Your task to perform on an android device: Search for 8K TVs on Best Buy. Image 0: 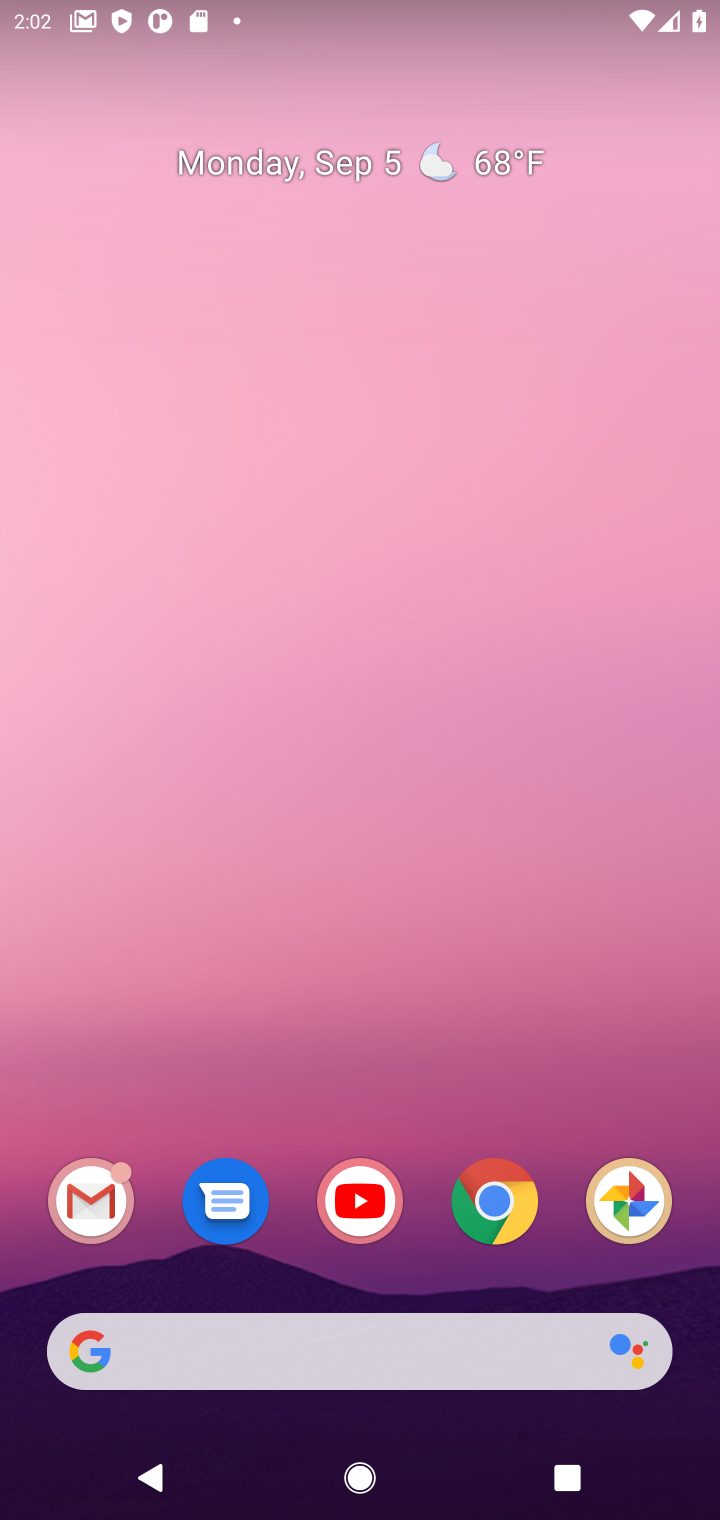
Step 0: click (492, 1191)
Your task to perform on an android device: Search for 8K TVs on Best Buy. Image 1: 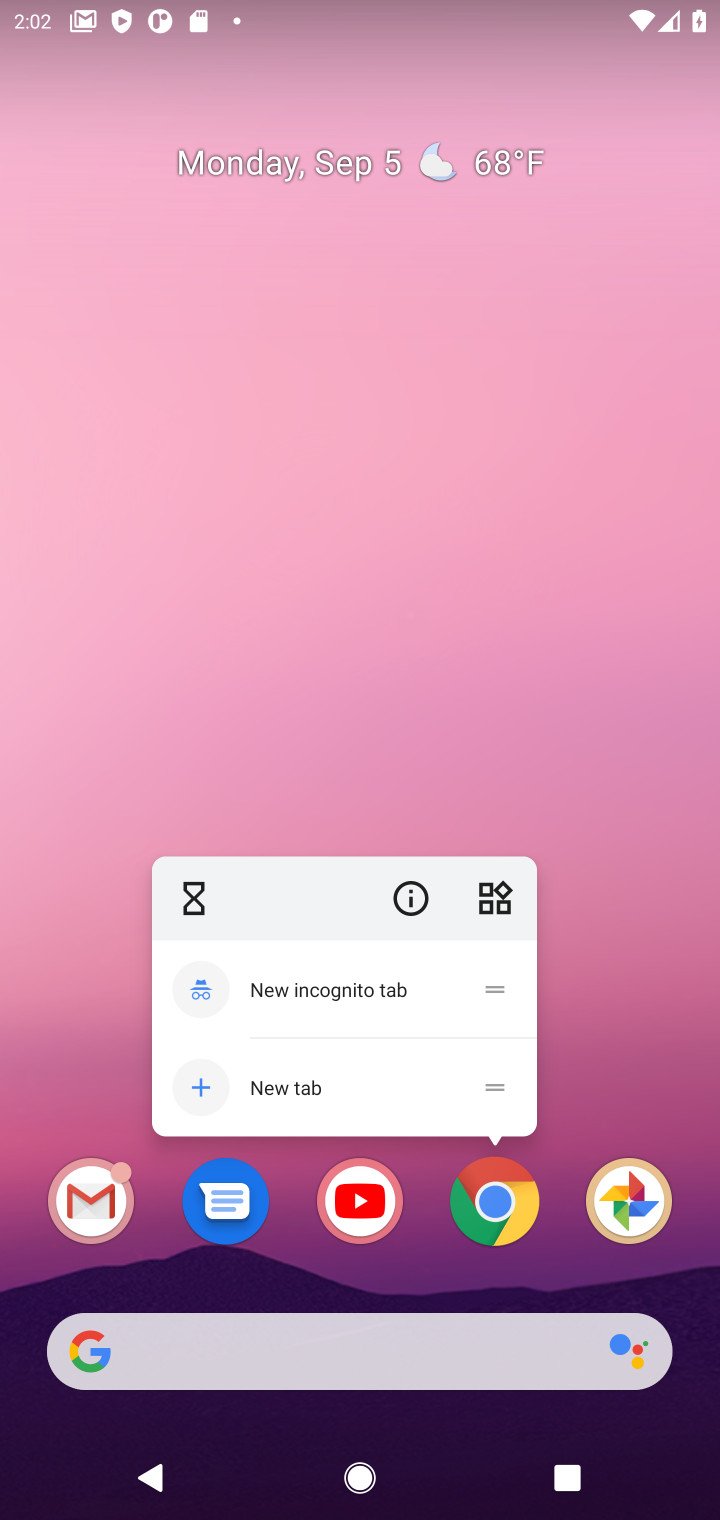
Step 1: click (492, 1194)
Your task to perform on an android device: Search for 8K TVs on Best Buy. Image 2: 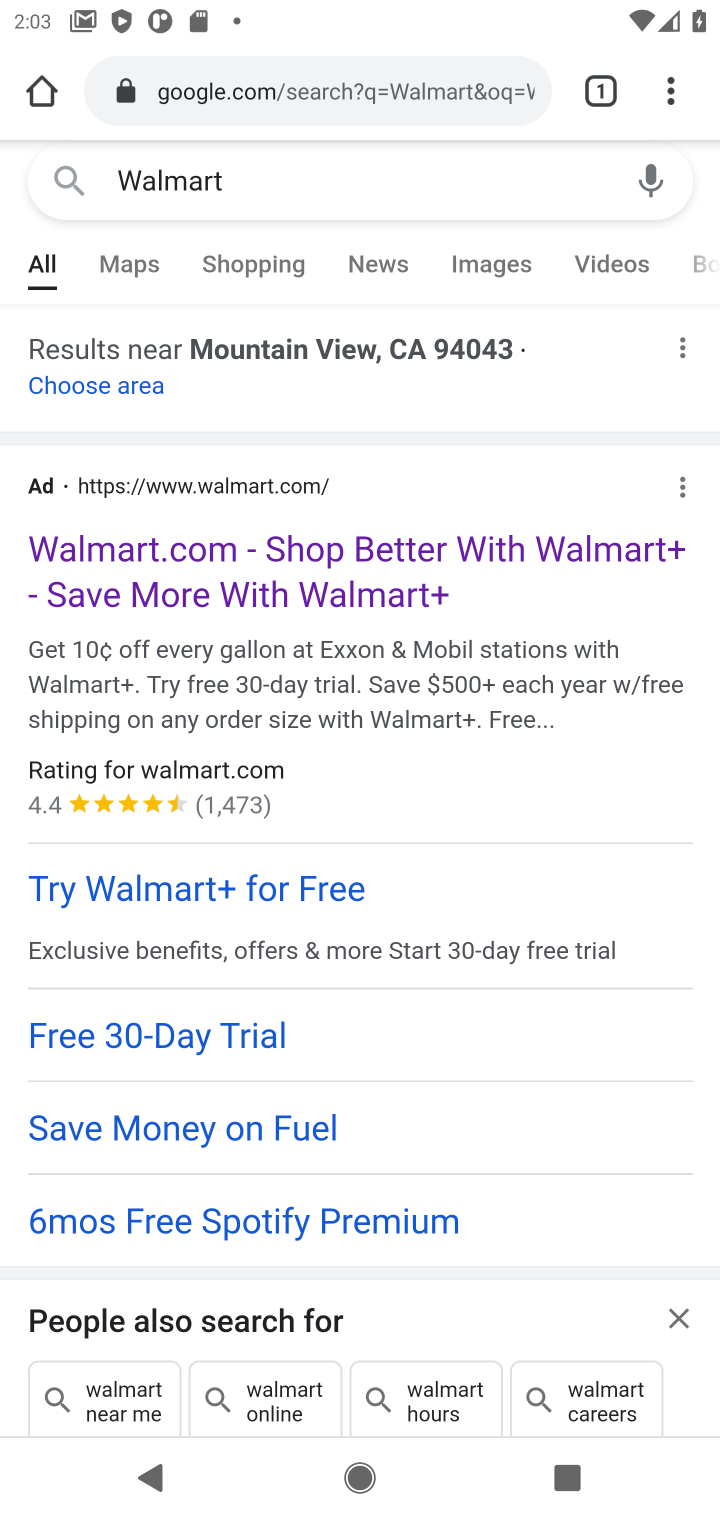
Step 2: click (425, 86)
Your task to perform on an android device: Search for 8K TVs on Best Buy. Image 3: 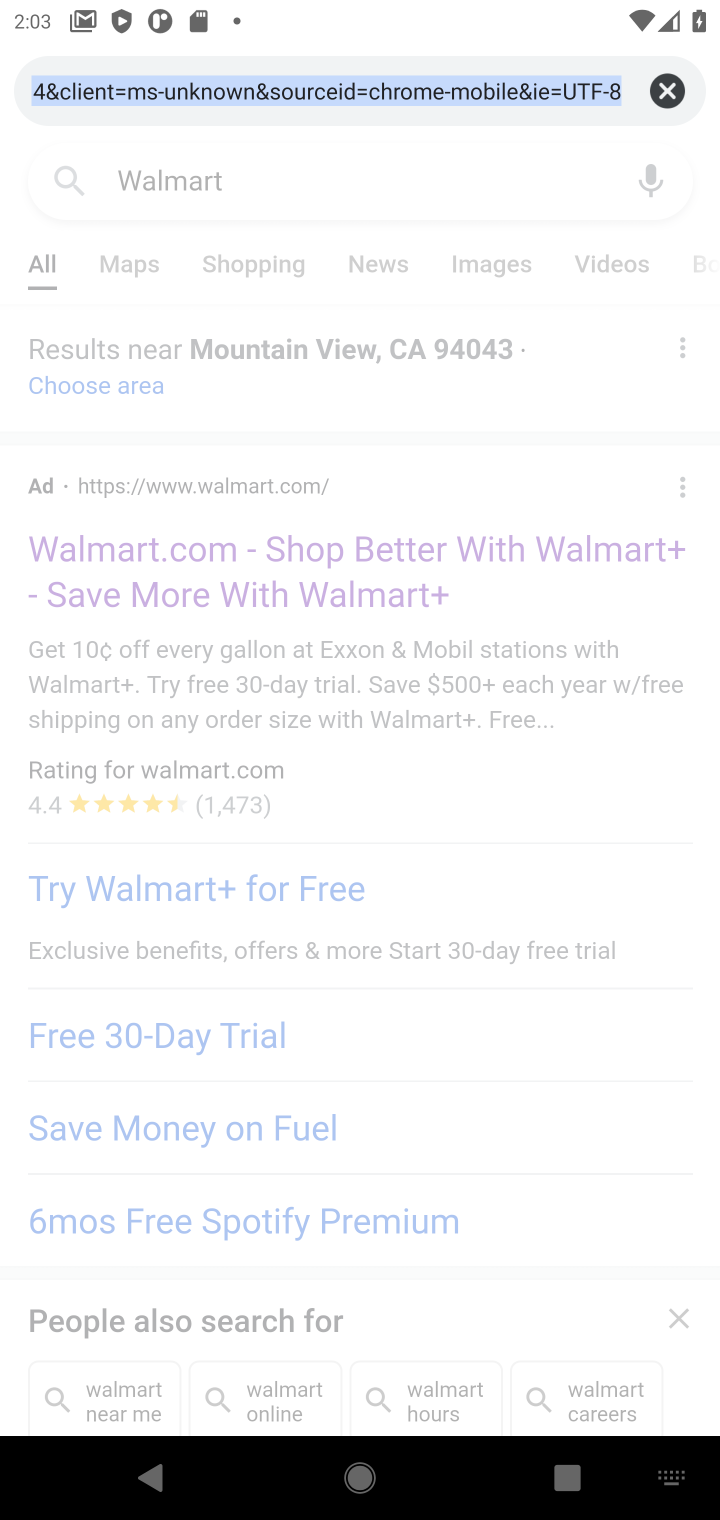
Step 3: click (653, 75)
Your task to perform on an android device: Search for 8K TVs on Best Buy. Image 4: 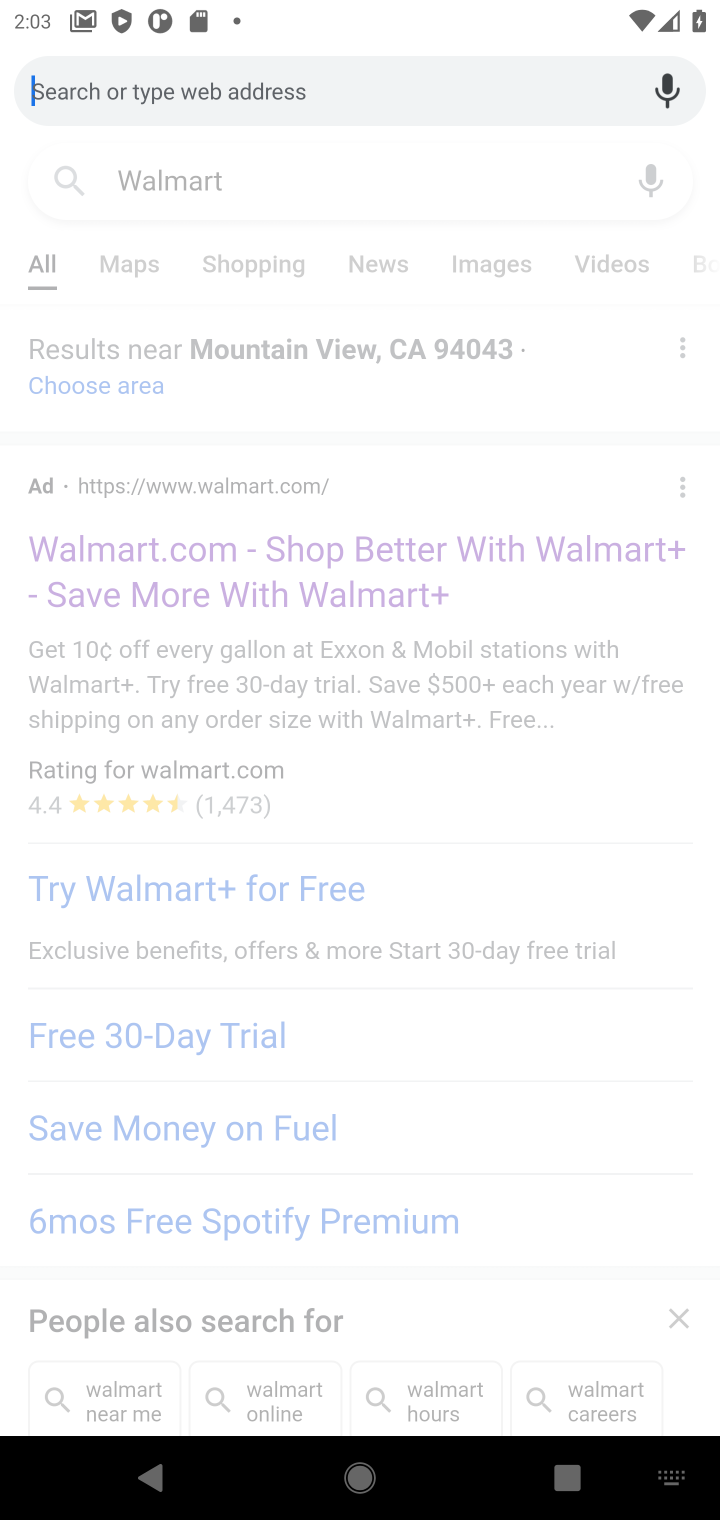
Step 4: type "Best Buy"
Your task to perform on an android device: Search for 8K TVs on Best Buy. Image 5: 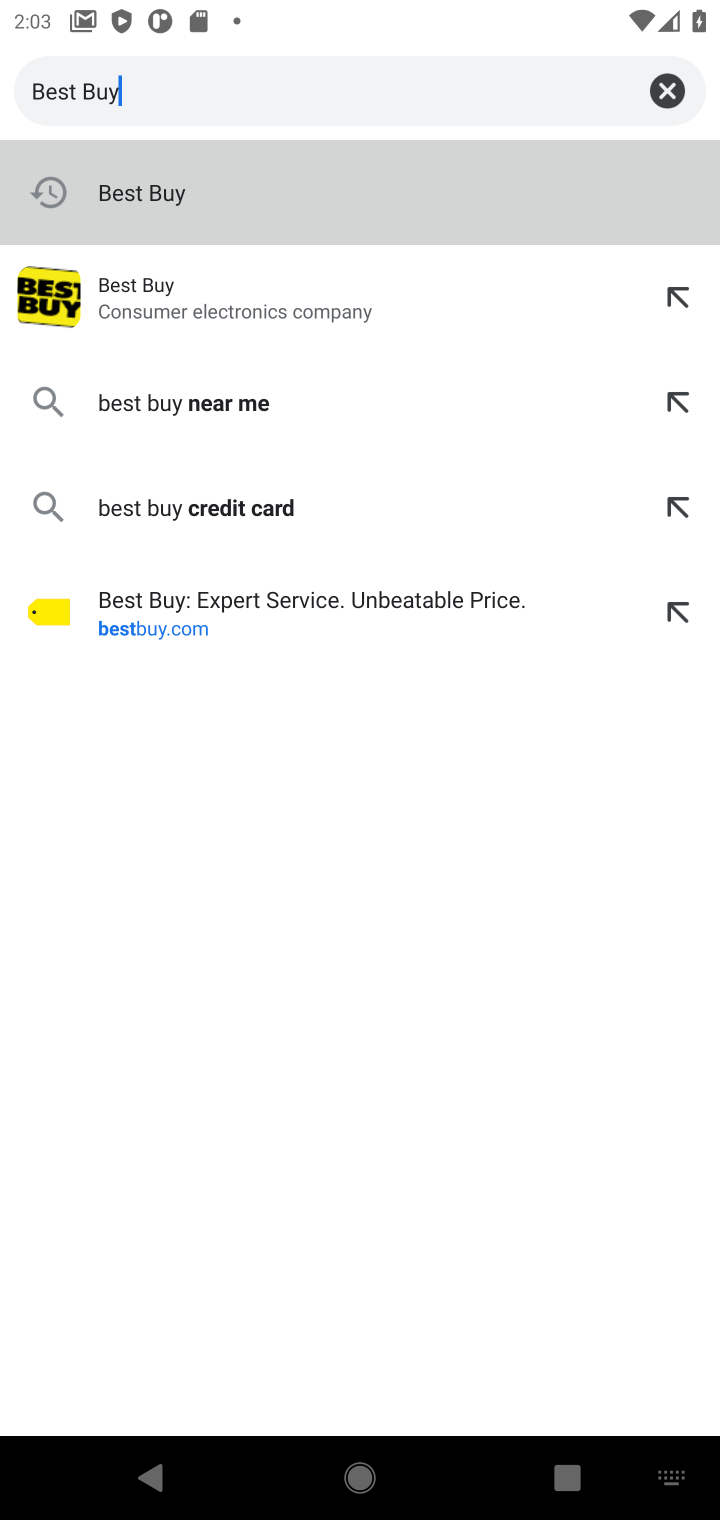
Step 5: press enter
Your task to perform on an android device: Search for 8K TVs on Best Buy. Image 6: 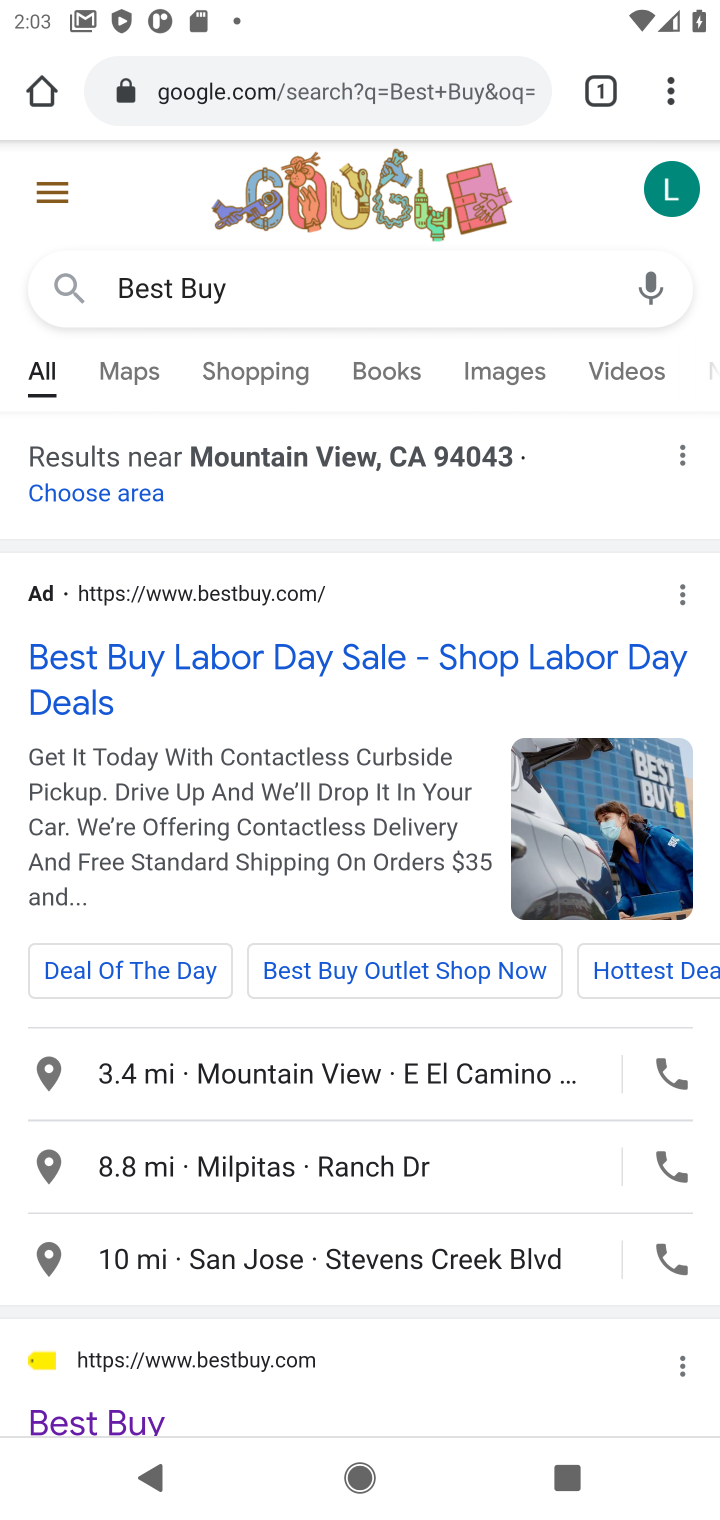
Step 6: drag from (385, 1088) to (677, 314)
Your task to perform on an android device: Search for 8K TVs on Best Buy. Image 7: 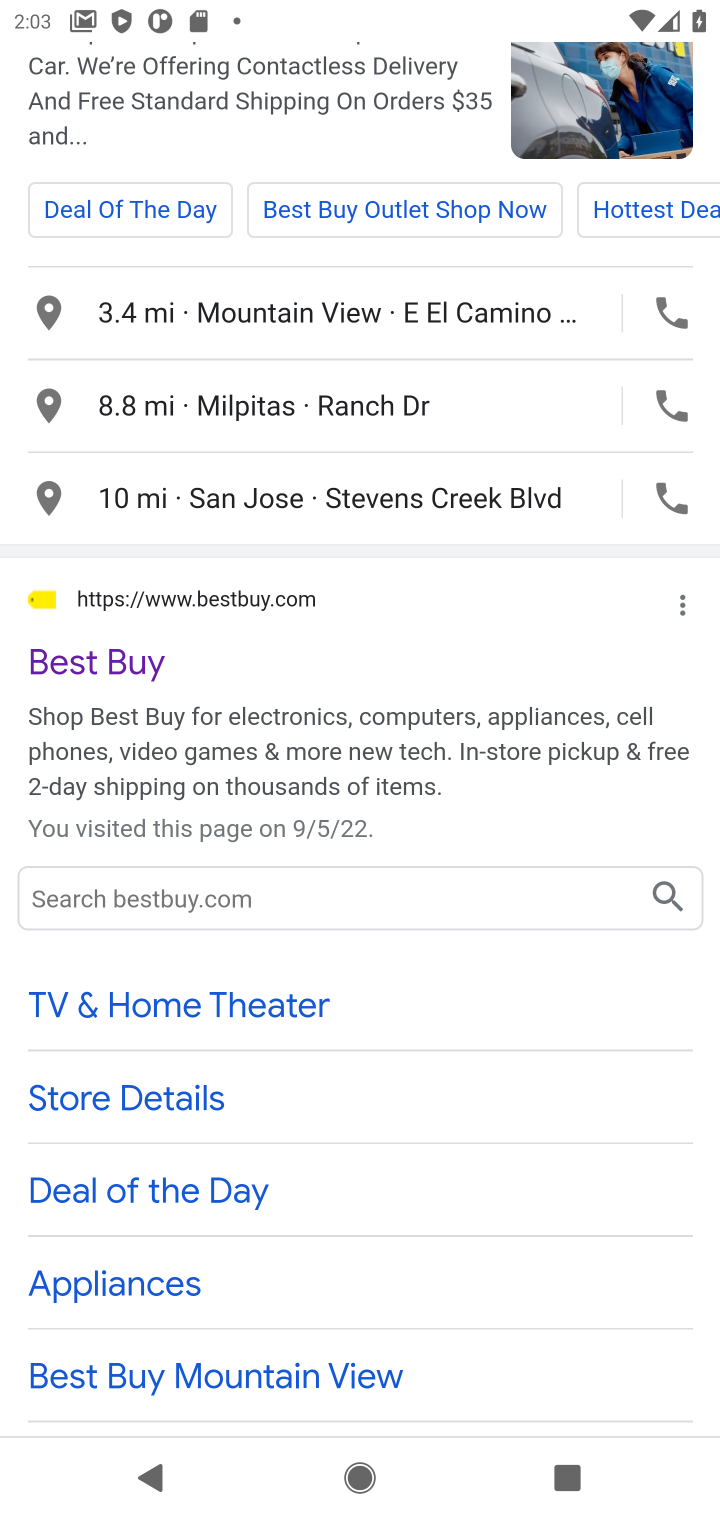
Step 7: click (77, 658)
Your task to perform on an android device: Search for 8K TVs on Best Buy. Image 8: 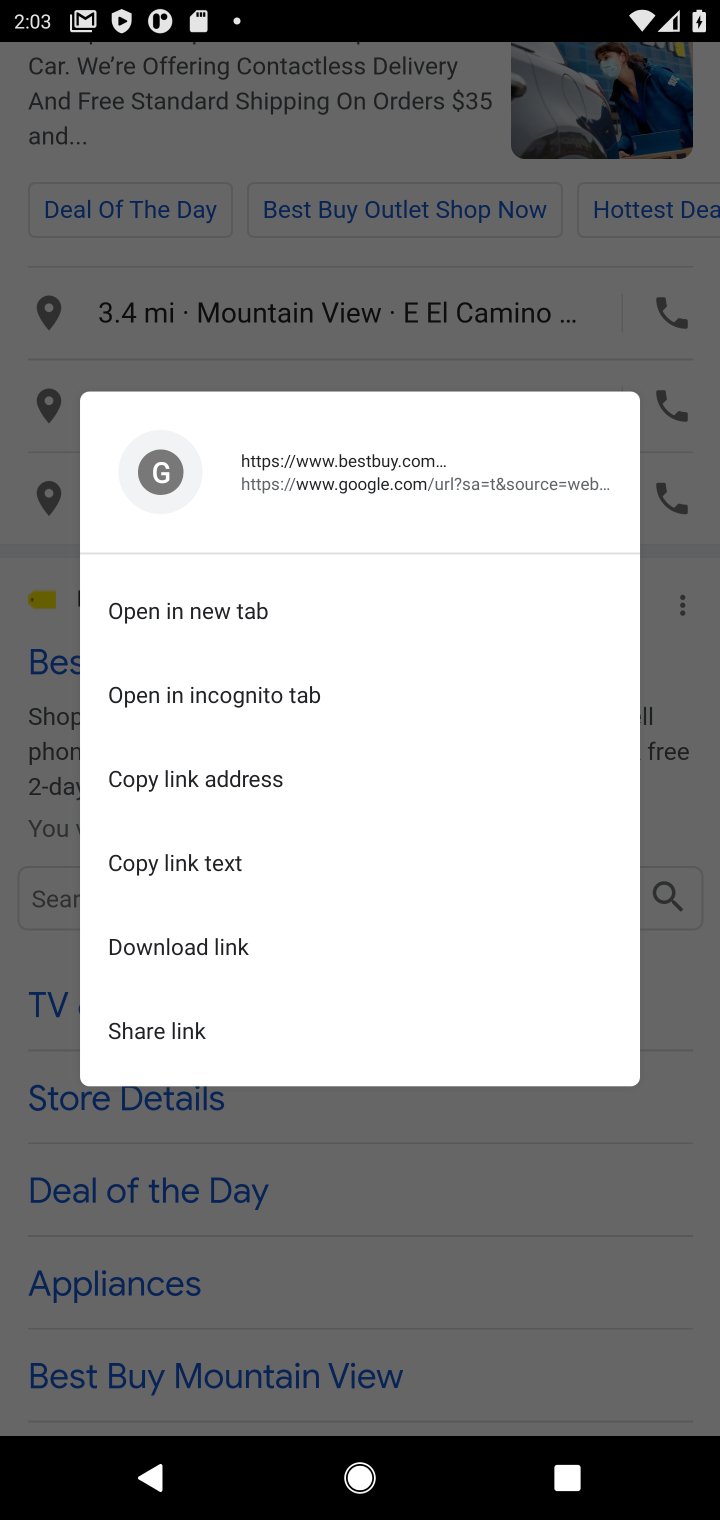
Step 8: click (639, 1268)
Your task to perform on an android device: Search for 8K TVs on Best Buy. Image 9: 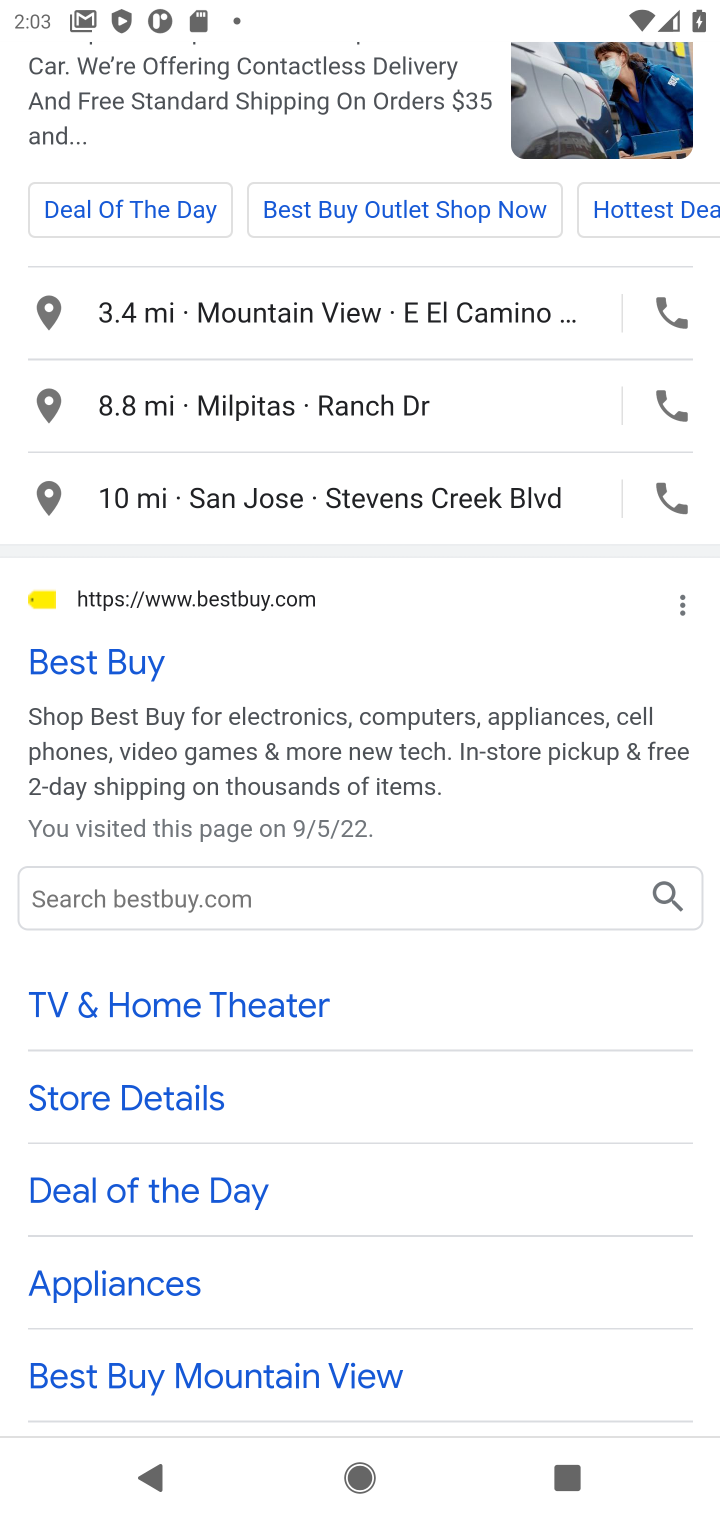
Step 9: click (71, 666)
Your task to perform on an android device: Search for 8K TVs on Best Buy. Image 10: 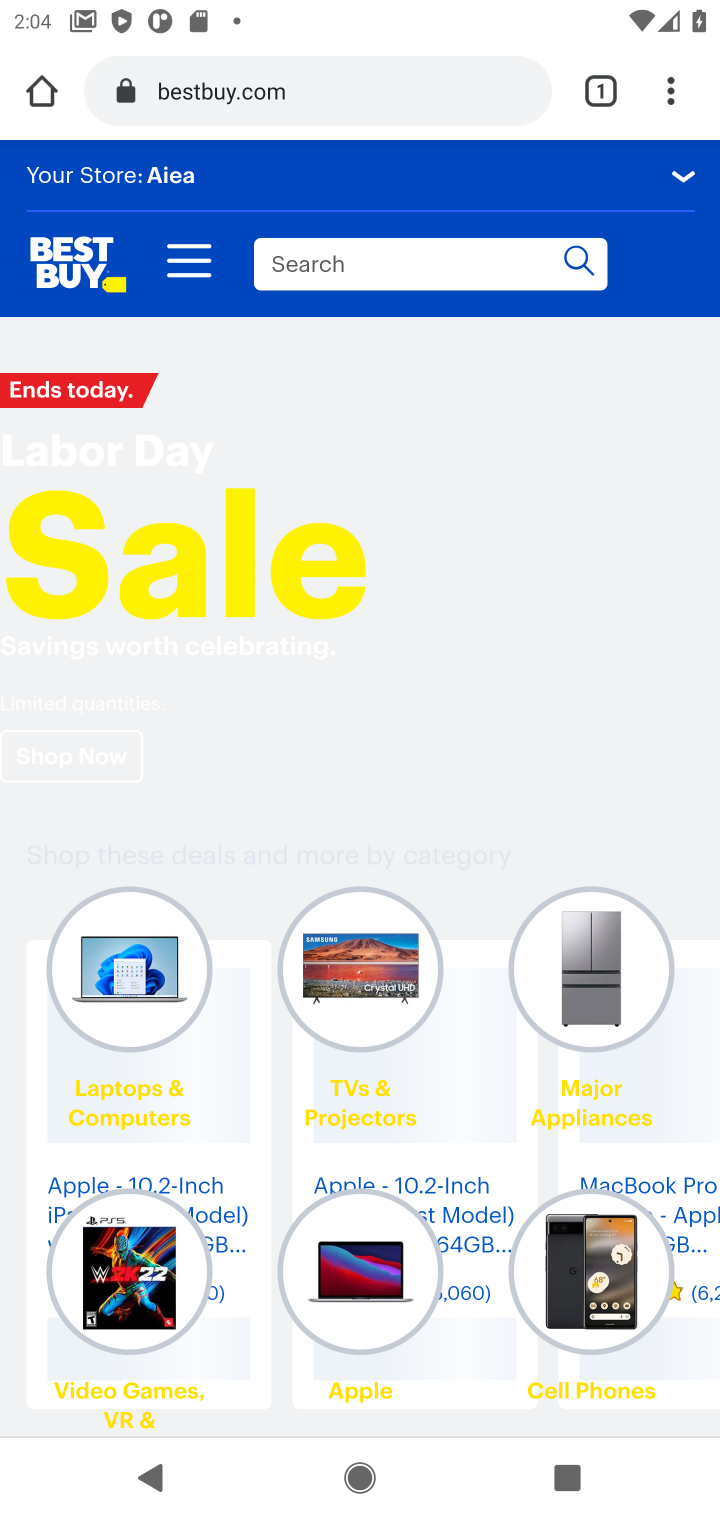
Step 10: click (384, 259)
Your task to perform on an android device: Search for 8K TVs on Best Buy. Image 11: 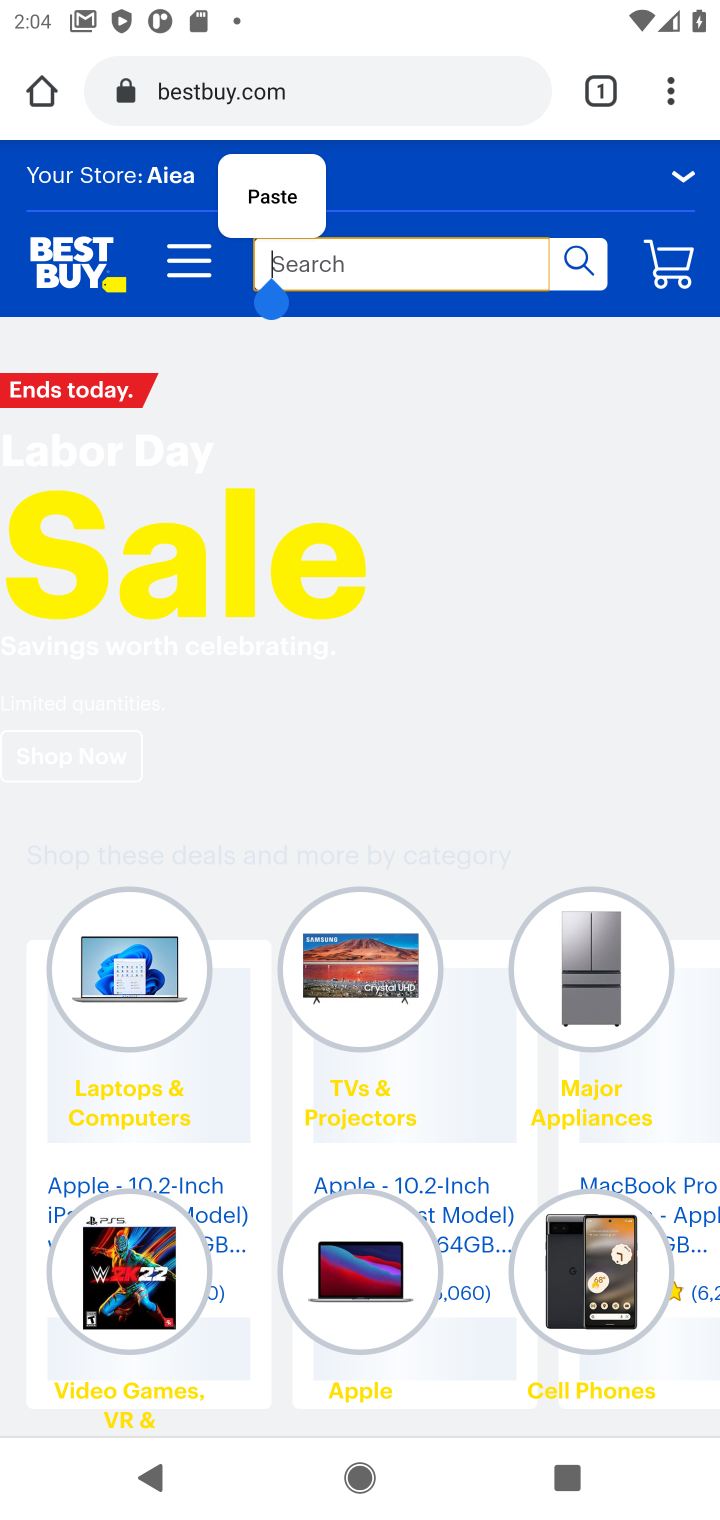
Step 11: click (491, 262)
Your task to perform on an android device: Search for 8K TVs on Best Buy. Image 12: 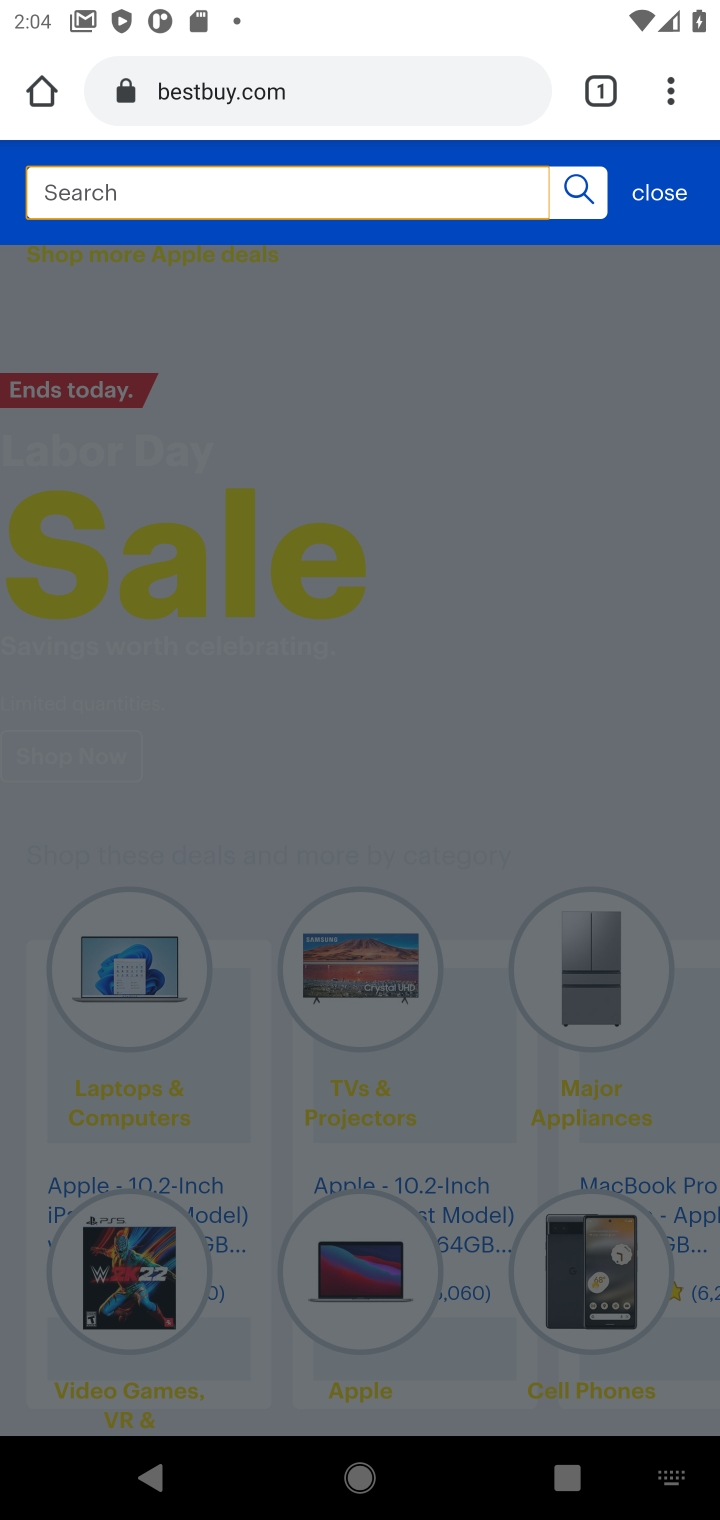
Step 12: press enter
Your task to perform on an android device: Search for 8K TVs on Best Buy. Image 13: 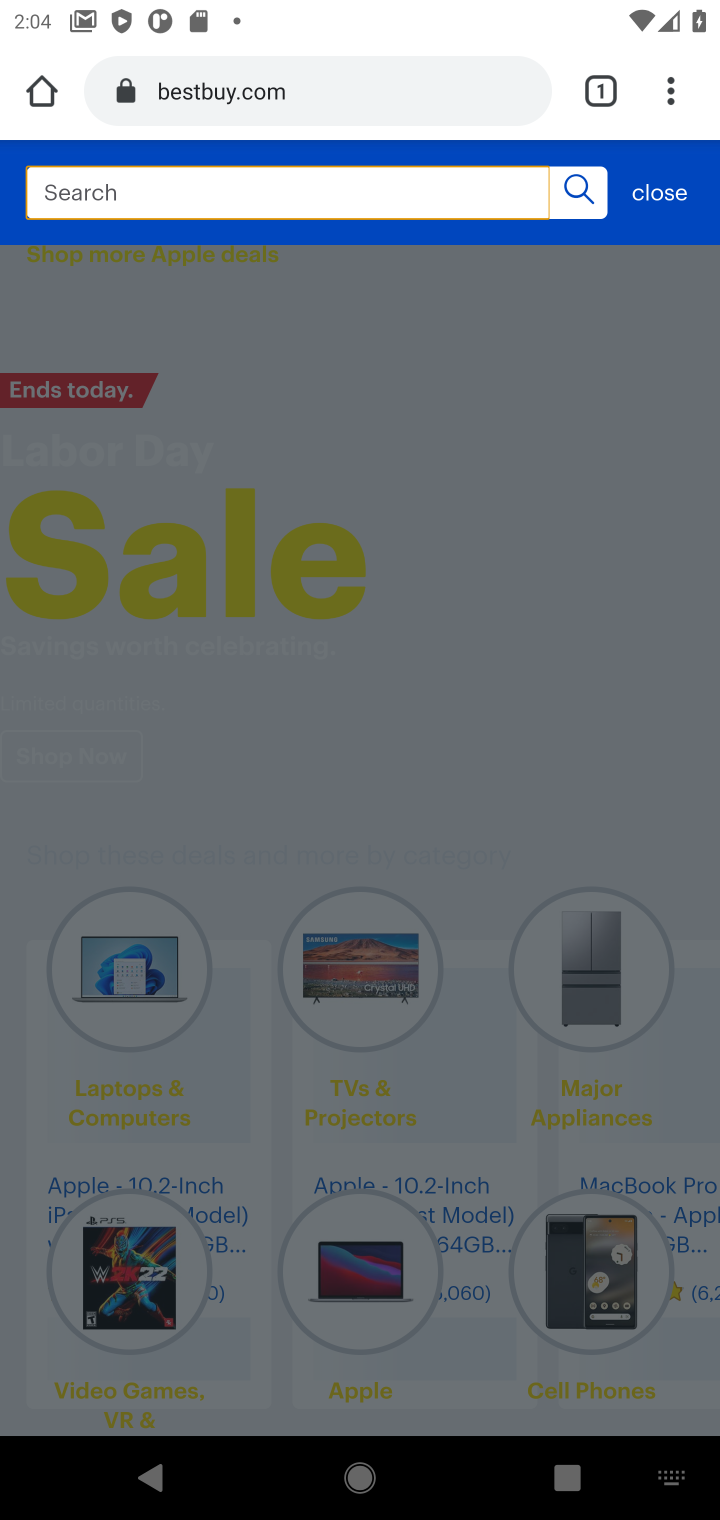
Step 13: type "8K TVs "
Your task to perform on an android device: Search for 8K TVs on Best Buy. Image 14: 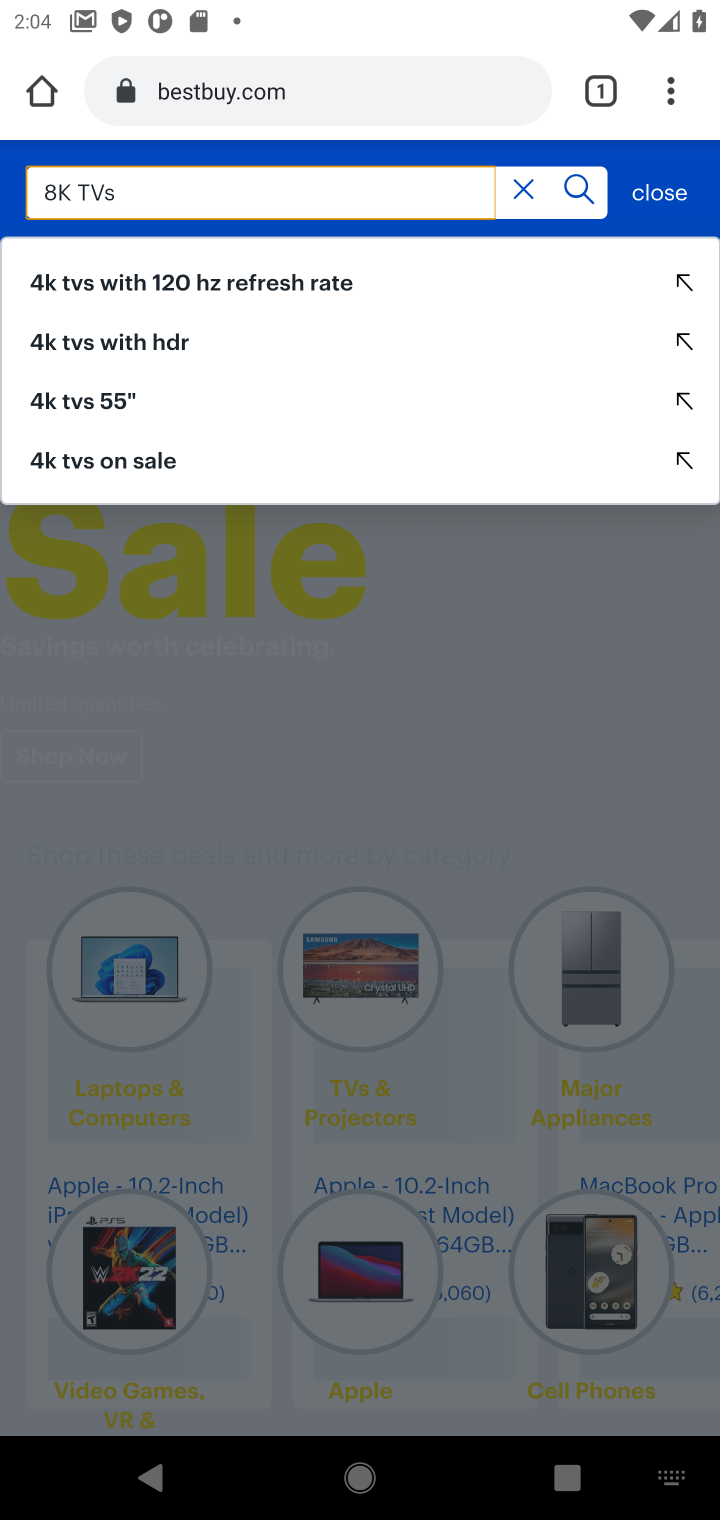
Step 14: click (569, 180)
Your task to perform on an android device: Search for 8K TVs on Best Buy. Image 15: 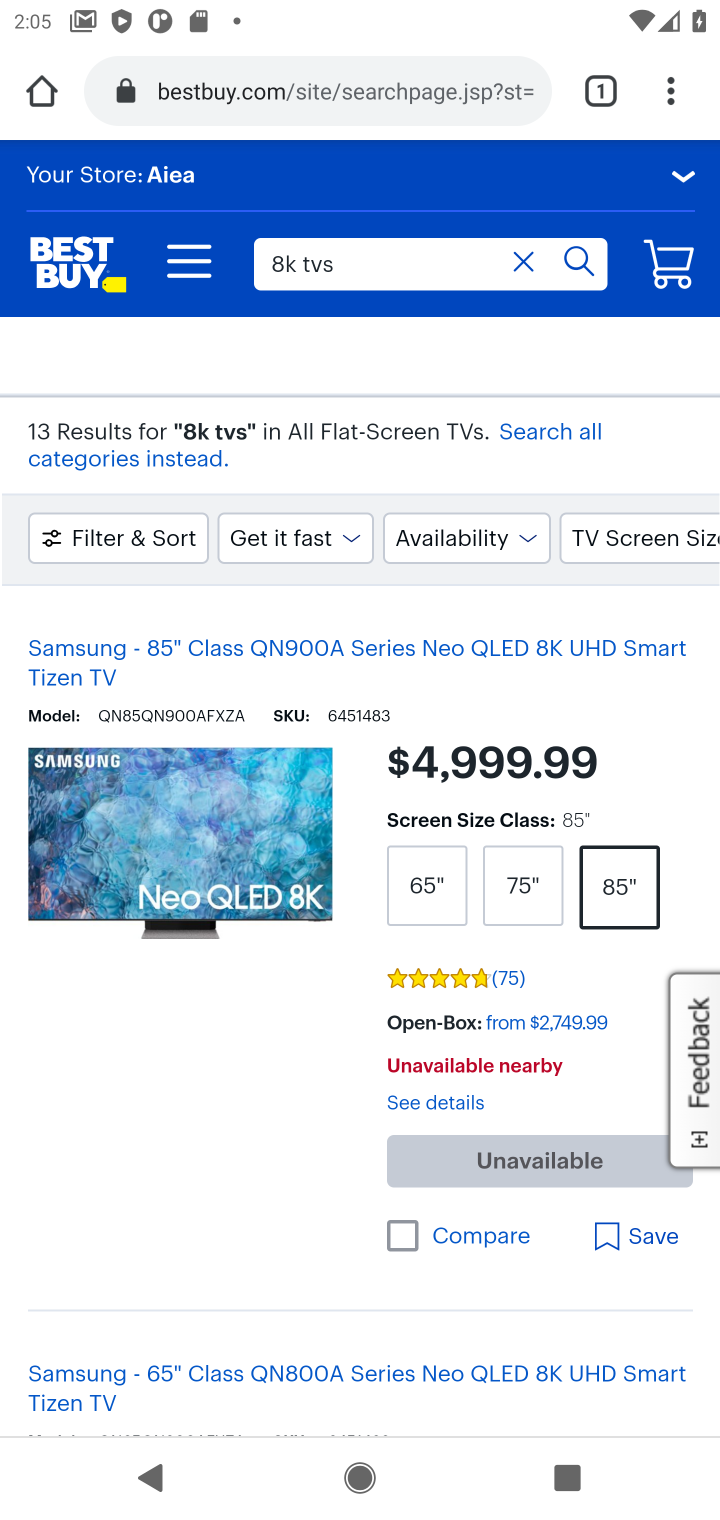
Step 15: task complete